Your task to perform on an android device: Search for the new Apple Watch on Best Buy Image 0: 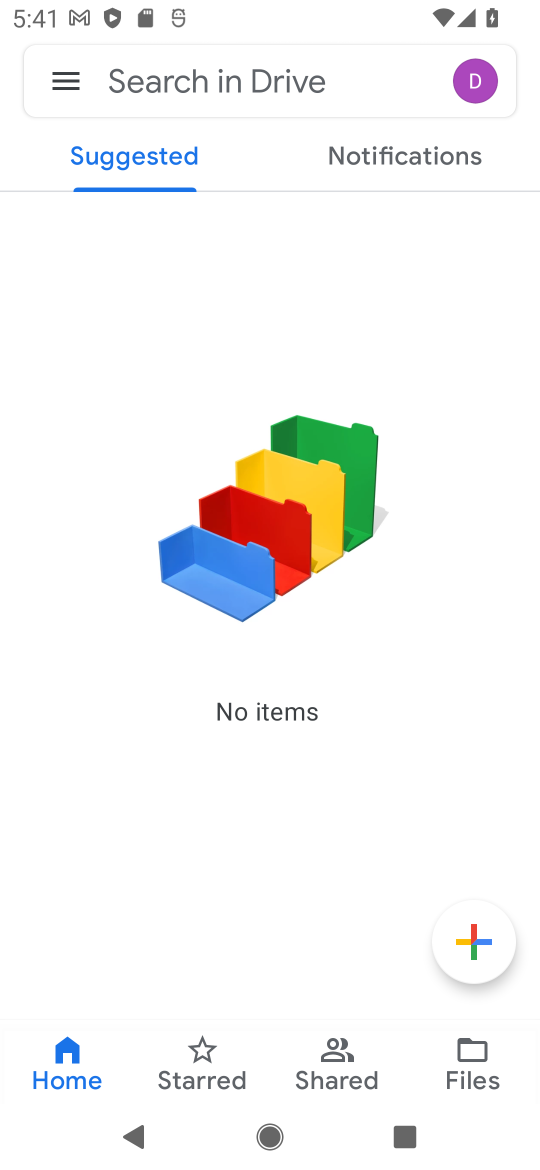
Step 0: press home button
Your task to perform on an android device: Search for the new Apple Watch on Best Buy Image 1: 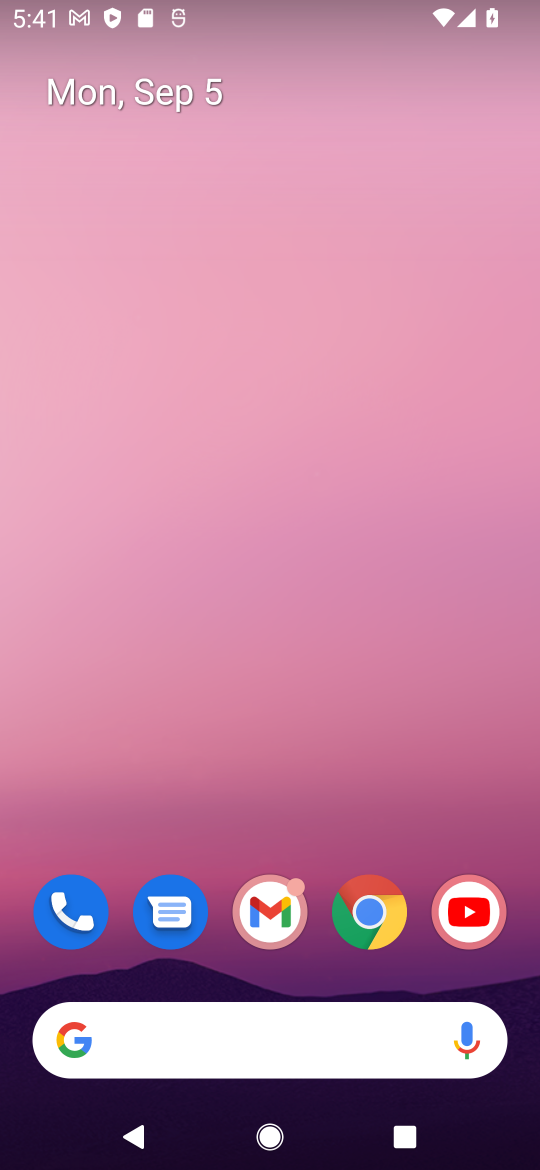
Step 1: click (373, 921)
Your task to perform on an android device: Search for the new Apple Watch on Best Buy Image 2: 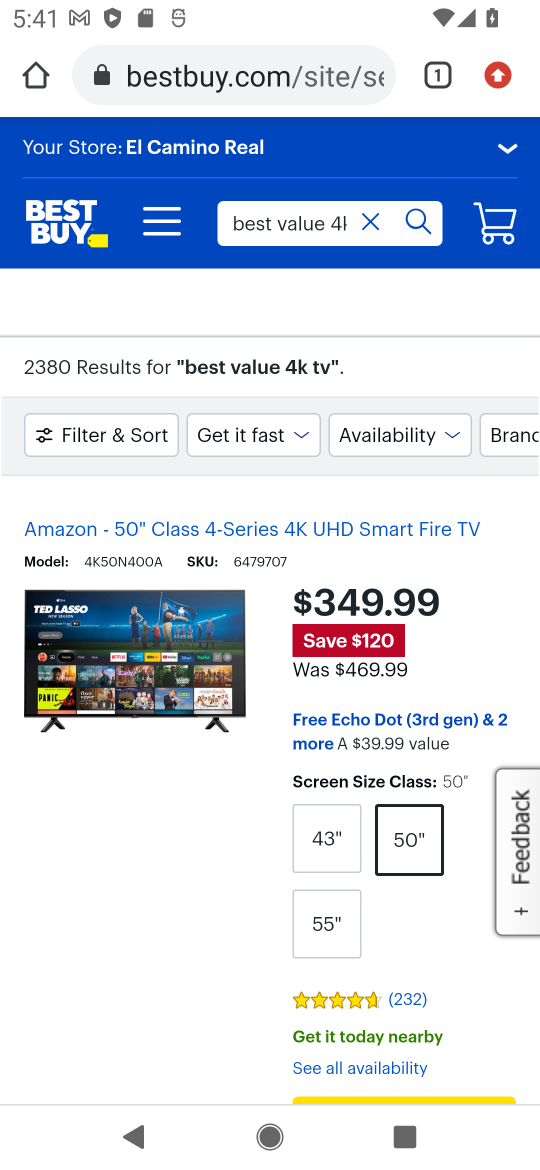
Step 2: click (247, 78)
Your task to perform on an android device: Search for the new Apple Watch on Best Buy Image 3: 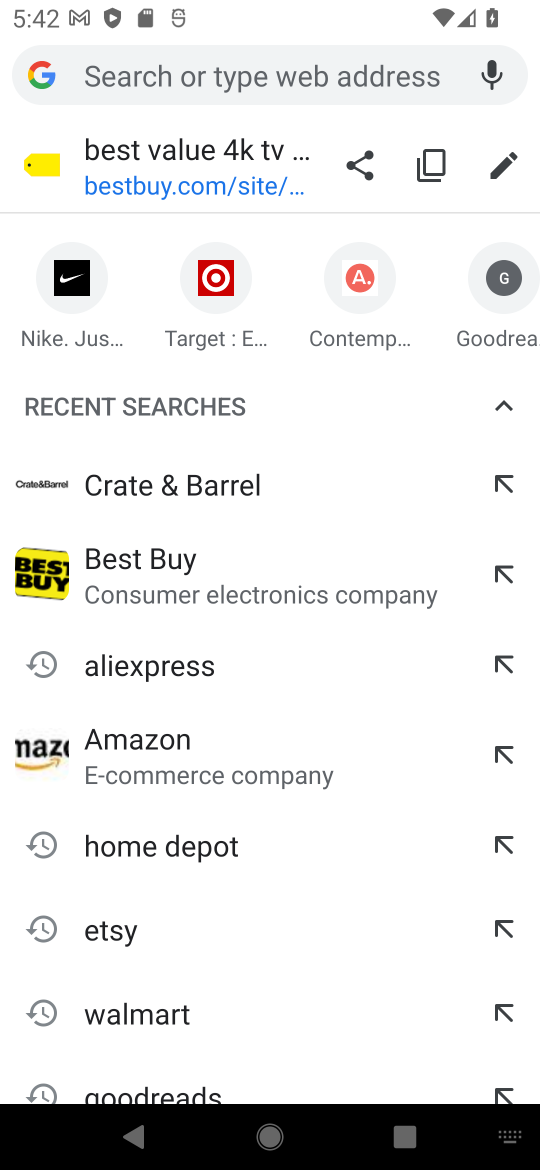
Step 3: type "best buy"
Your task to perform on an android device: Search for the new Apple Watch on Best Buy Image 4: 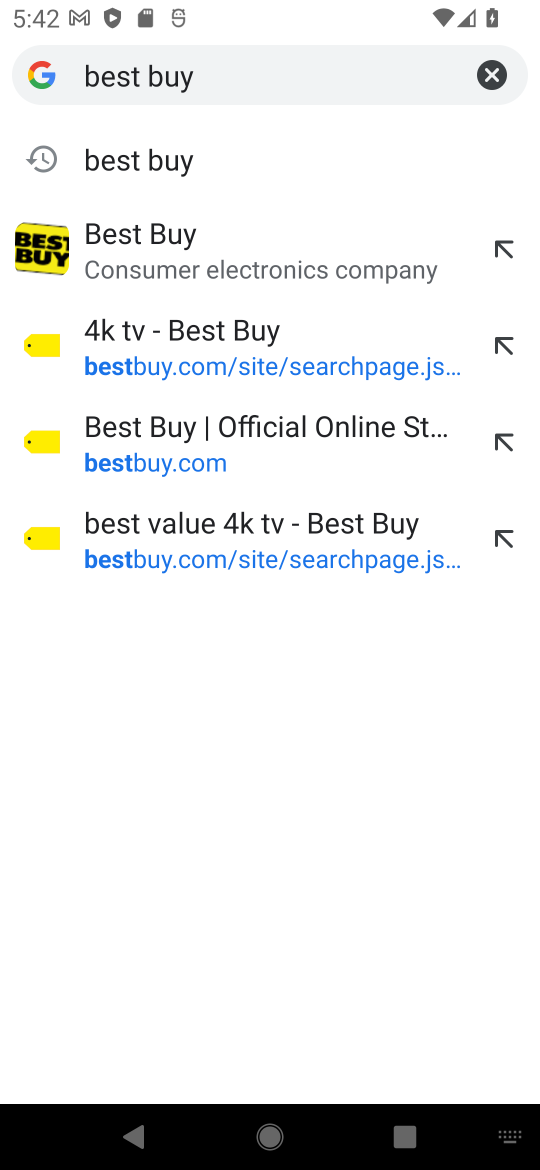
Step 4: press enter
Your task to perform on an android device: Search for the new Apple Watch on Best Buy Image 5: 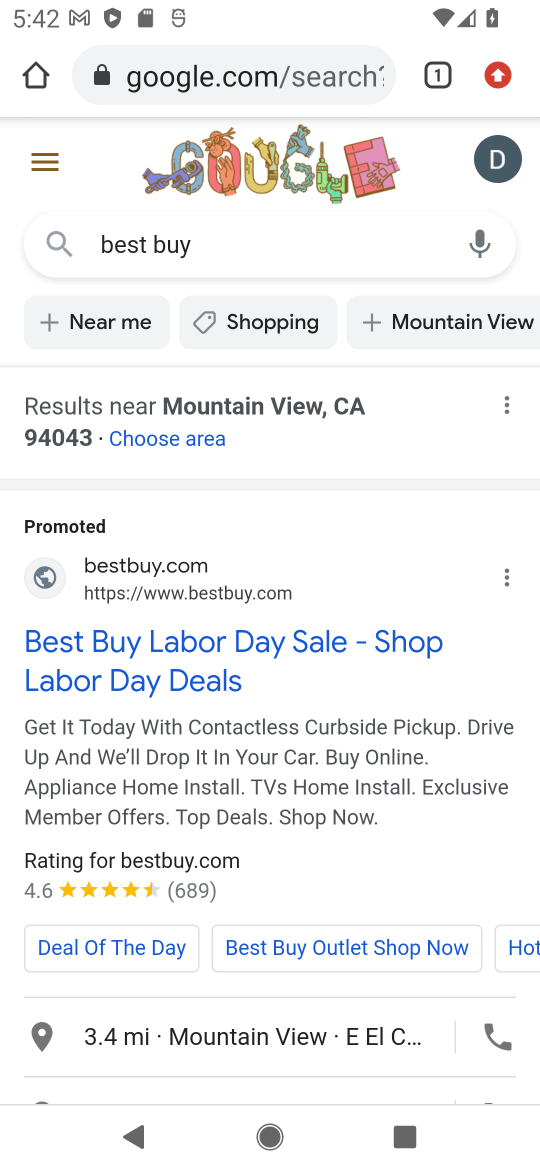
Step 5: click (92, 646)
Your task to perform on an android device: Search for the new Apple Watch on Best Buy Image 6: 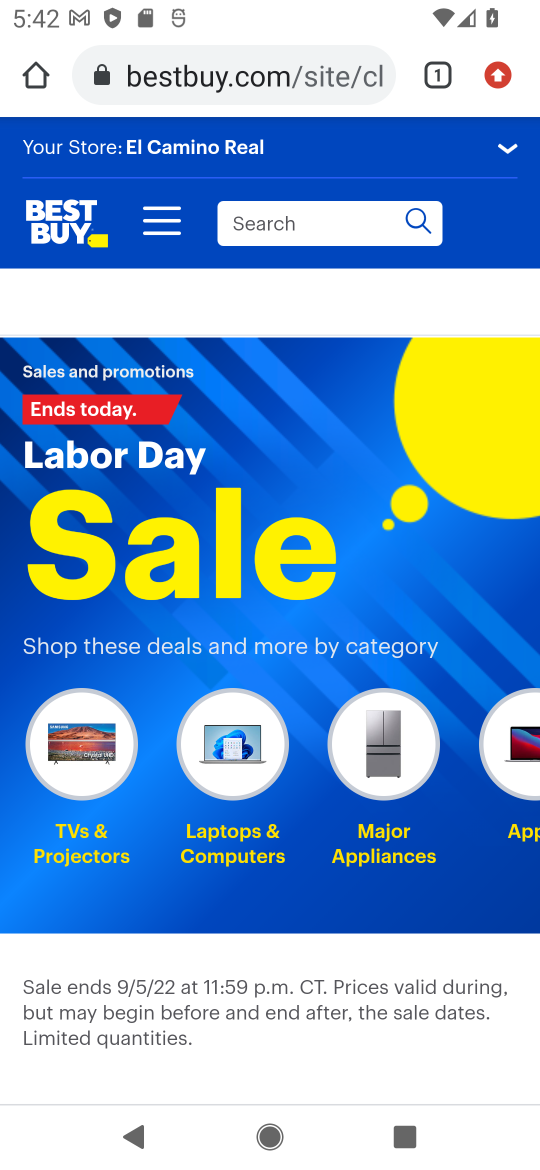
Step 6: click (295, 221)
Your task to perform on an android device: Search for the new Apple Watch on Best Buy Image 7: 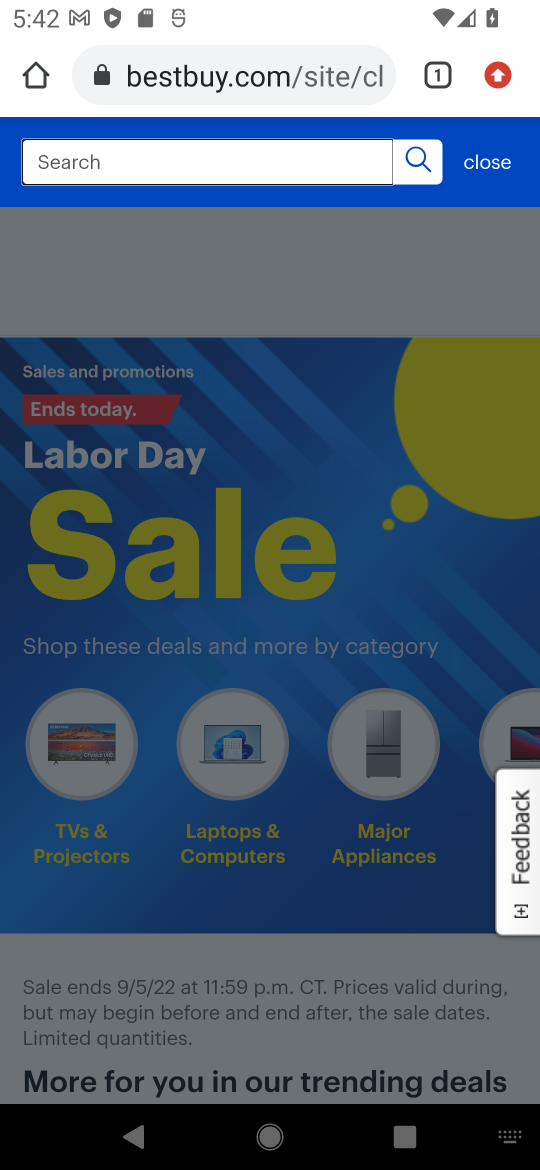
Step 7: type "new Apple watch"
Your task to perform on an android device: Search for the new Apple Watch on Best Buy Image 8: 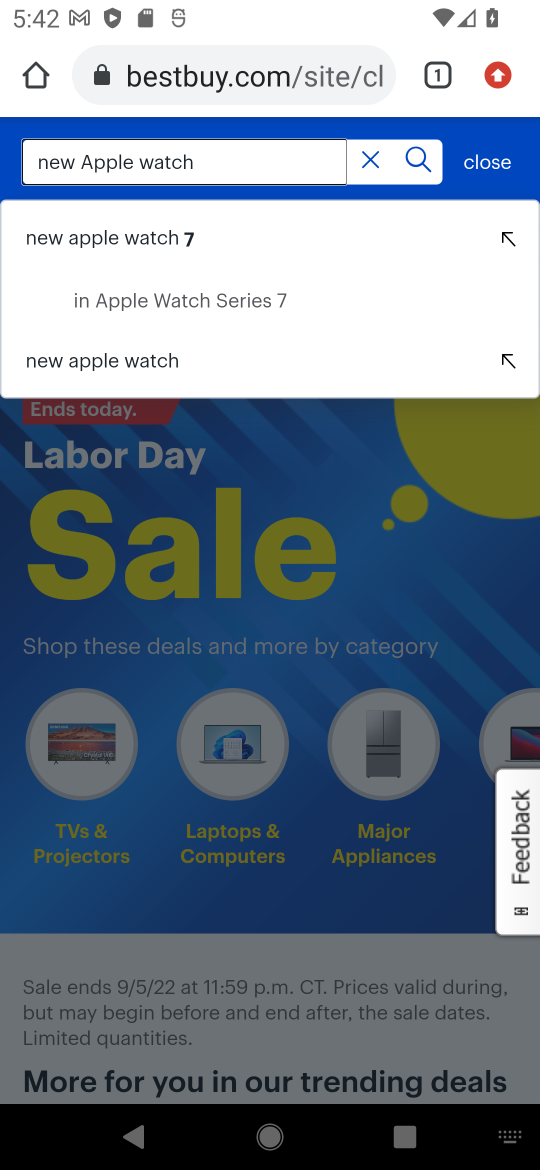
Step 8: click (415, 168)
Your task to perform on an android device: Search for the new Apple Watch on Best Buy Image 9: 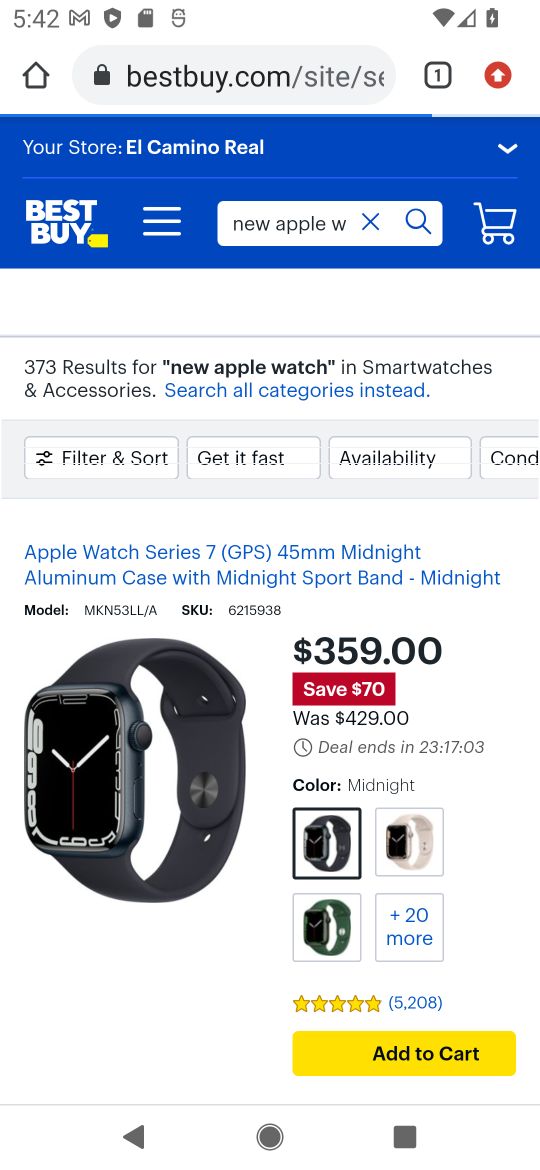
Step 9: click (93, 459)
Your task to perform on an android device: Search for the new Apple Watch on Best Buy Image 10: 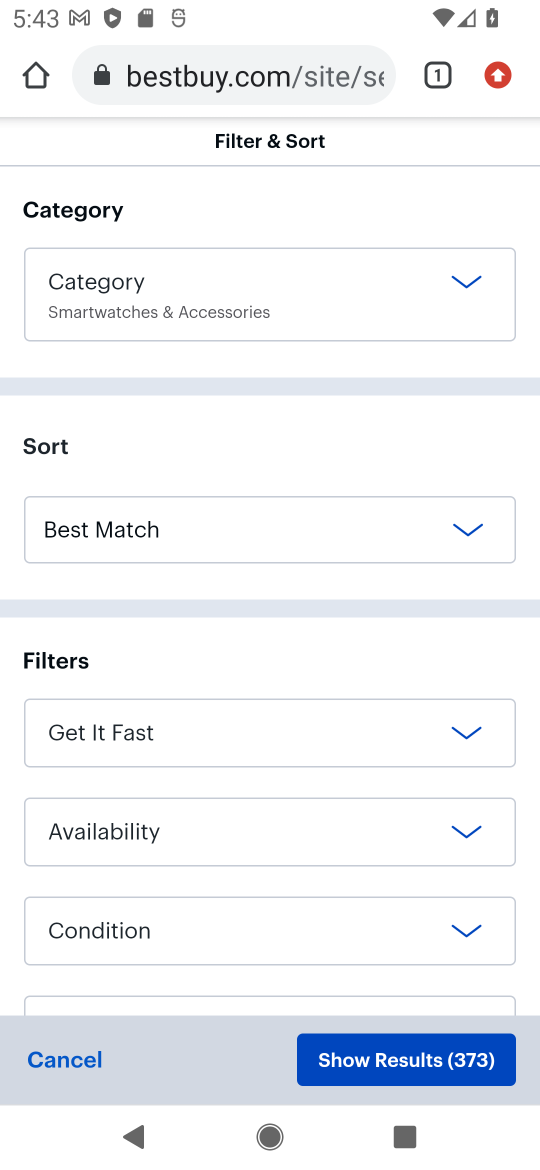
Step 10: click (129, 914)
Your task to perform on an android device: Search for the new Apple Watch on Best Buy Image 11: 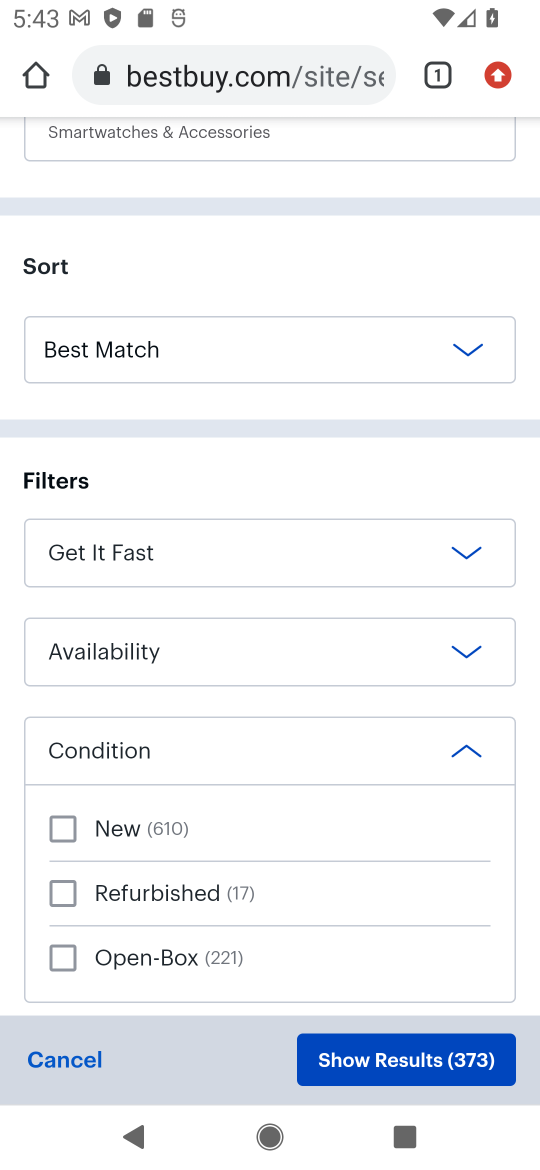
Step 11: click (54, 822)
Your task to perform on an android device: Search for the new Apple Watch on Best Buy Image 12: 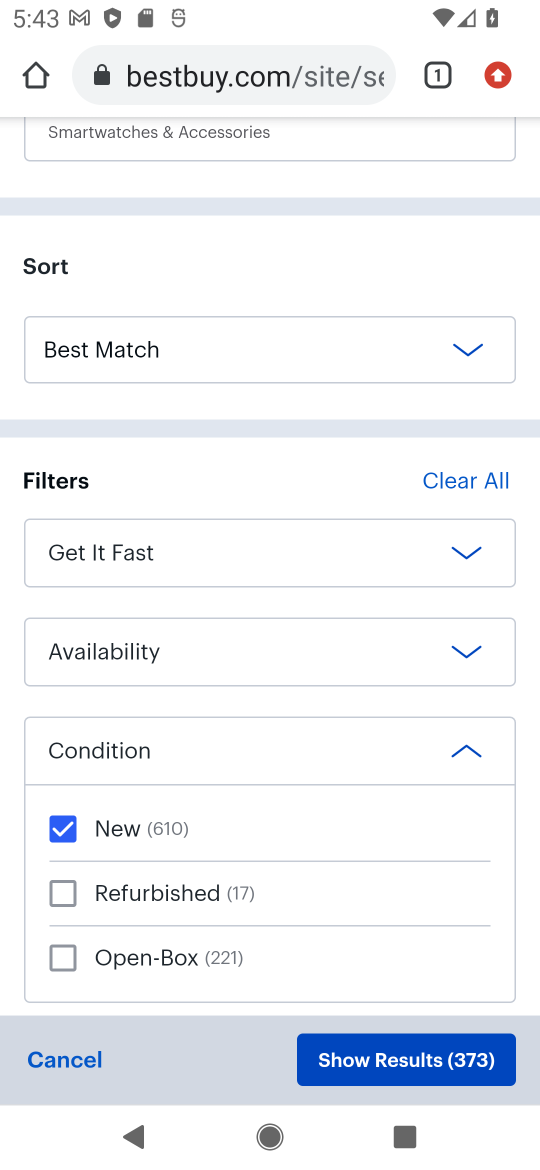
Step 12: click (442, 1067)
Your task to perform on an android device: Search for the new Apple Watch on Best Buy Image 13: 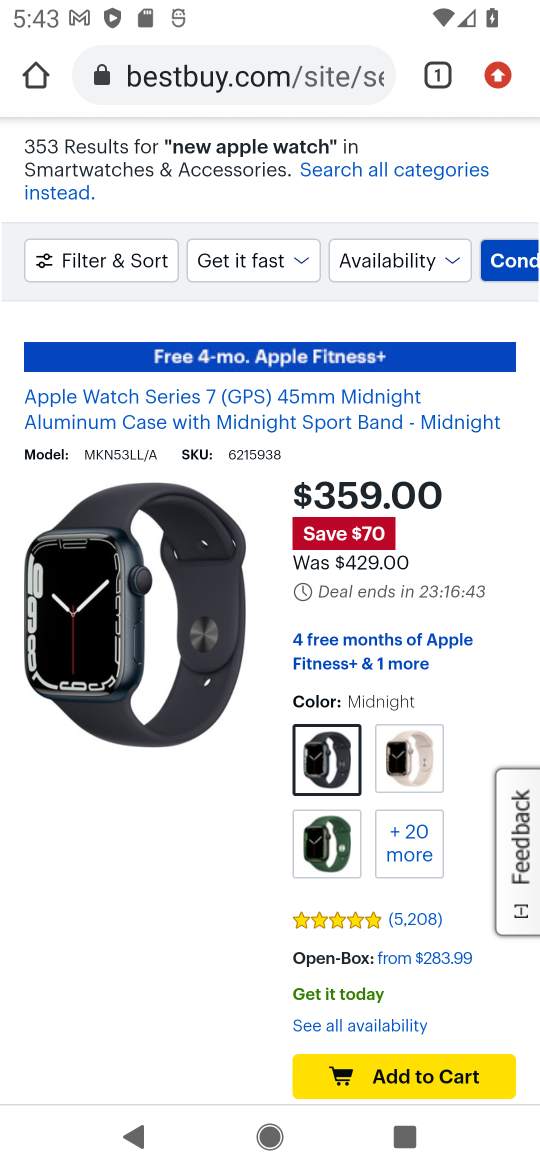
Step 13: task complete